Your task to perform on an android device: Open the map Image 0: 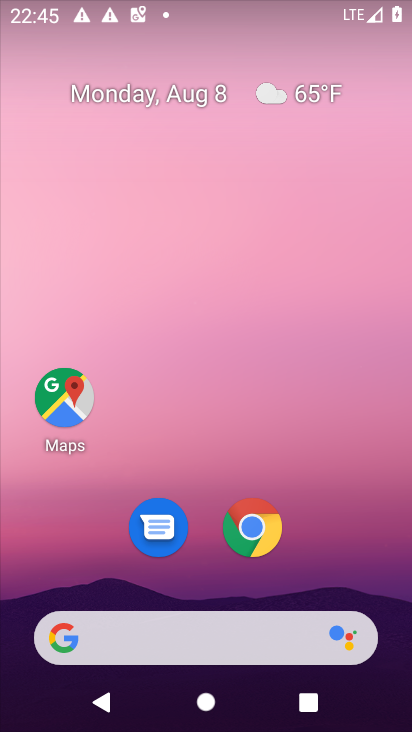
Step 0: click (70, 405)
Your task to perform on an android device: Open the map Image 1: 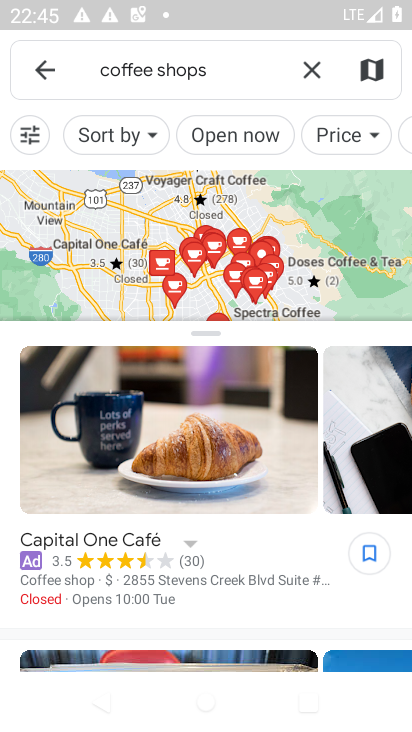
Step 1: click (44, 67)
Your task to perform on an android device: Open the map Image 2: 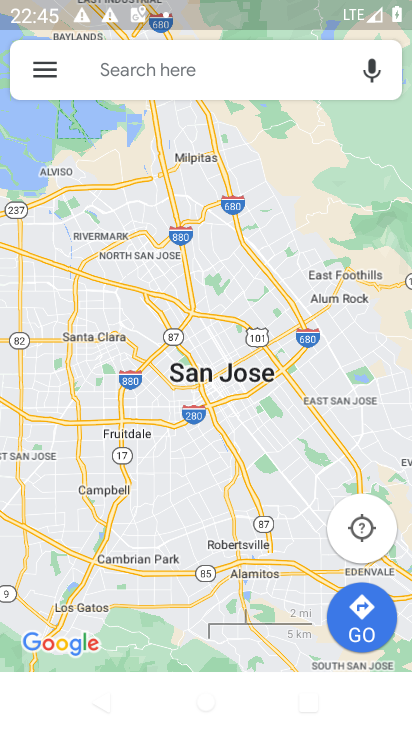
Step 2: task complete